Your task to perform on an android device: Go to Wikipedia Image 0: 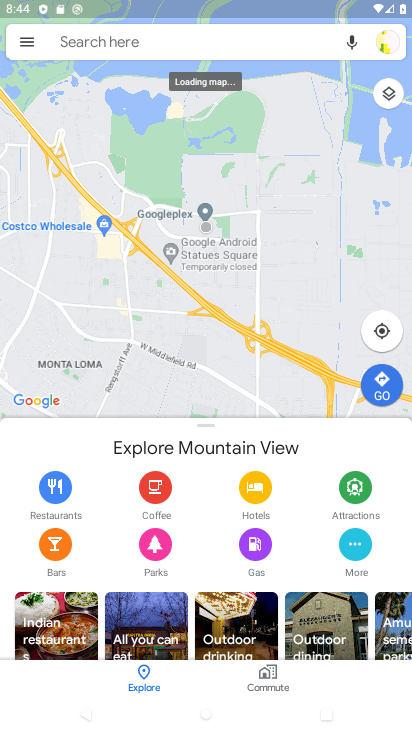
Step 0: press home button
Your task to perform on an android device: Go to Wikipedia Image 1: 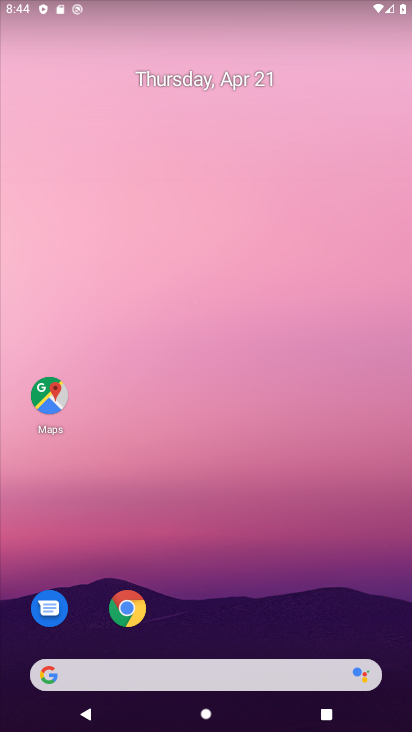
Step 1: drag from (296, 578) to (266, 198)
Your task to perform on an android device: Go to Wikipedia Image 2: 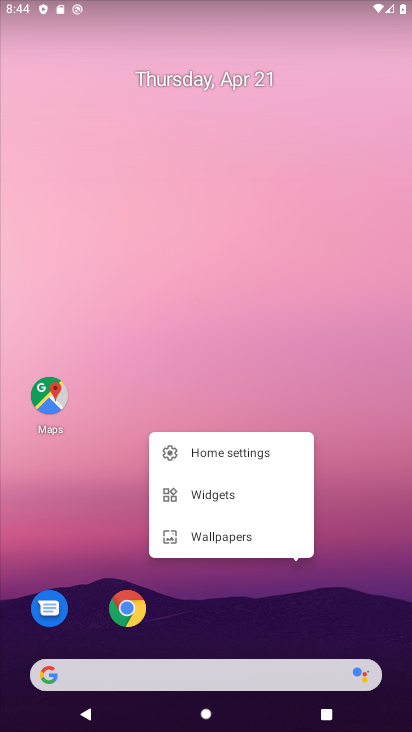
Step 2: click (127, 613)
Your task to perform on an android device: Go to Wikipedia Image 3: 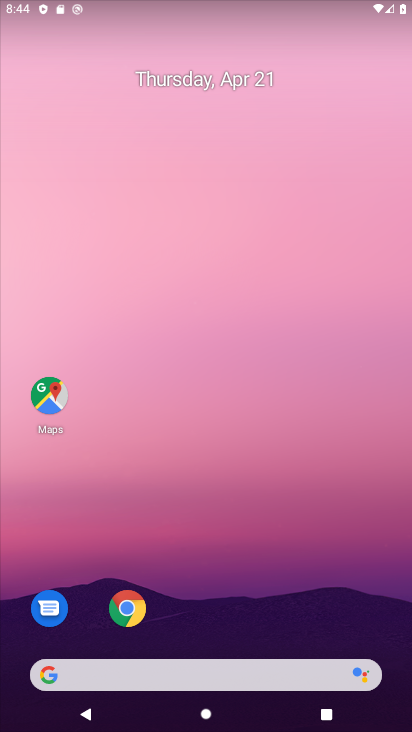
Step 3: click (127, 613)
Your task to perform on an android device: Go to Wikipedia Image 4: 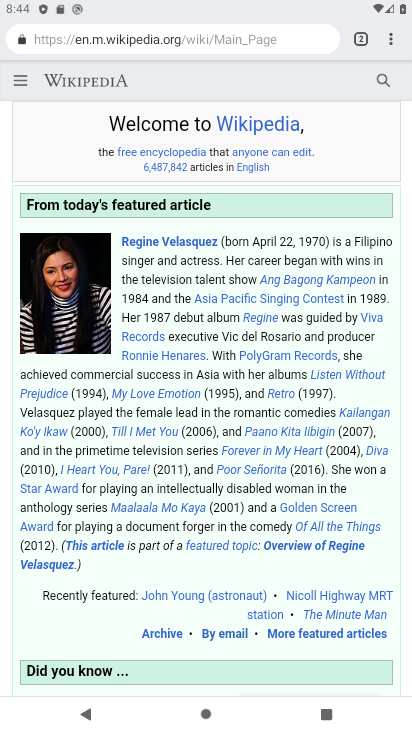
Step 4: task complete